Your task to perform on an android device: add a contact in the contacts app Image 0: 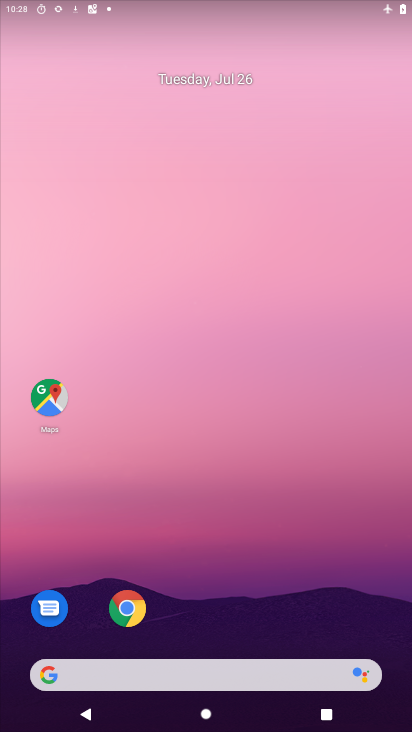
Step 0: drag from (209, 396) to (242, 128)
Your task to perform on an android device: add a contact in the contacts app Image 1: 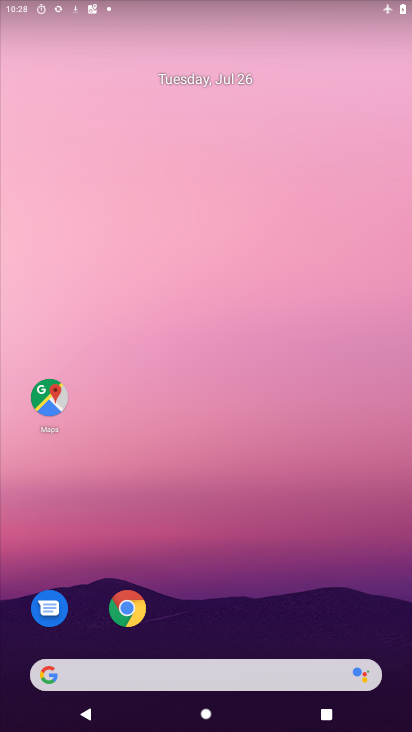
Step 1: drag from (206, 601) to (214, 91)
Your task to perform on an android device: add a contact in the contacts app Image 2: 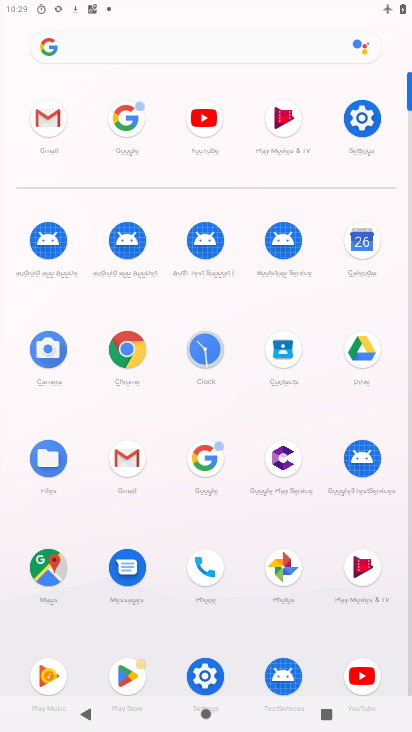
Step 2: click (280, 362)
Your task to perform on an android device: add a contact in the contacts app Image 3: 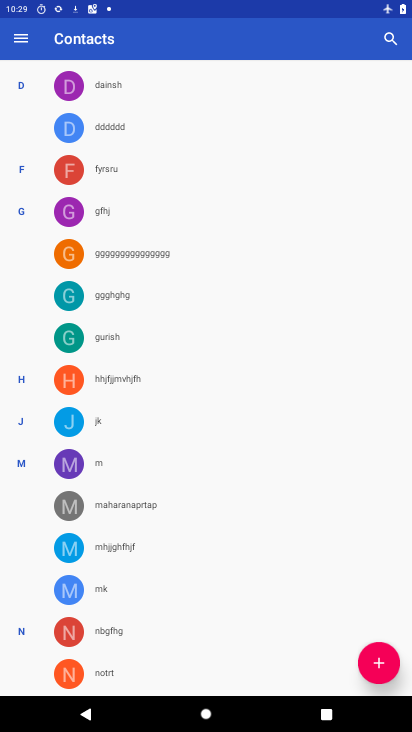
Step 3: click (377, 666)
Your task to perform on an android device: add a contact in the contacts app Image 4: 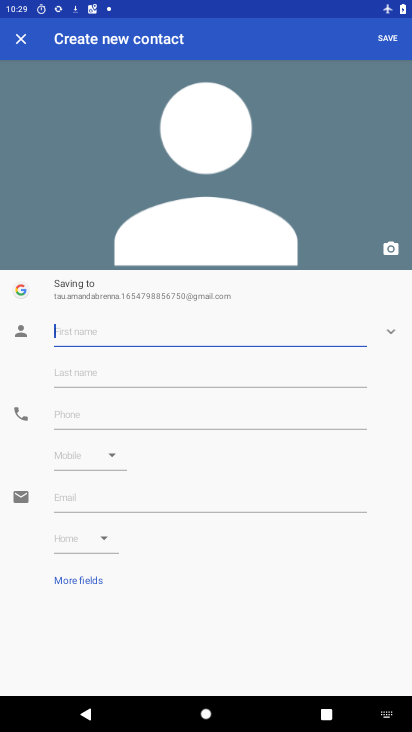
Step 4: type "cvngn"
Your task to perform on an android device: add a contact in the contacts app Image 5: 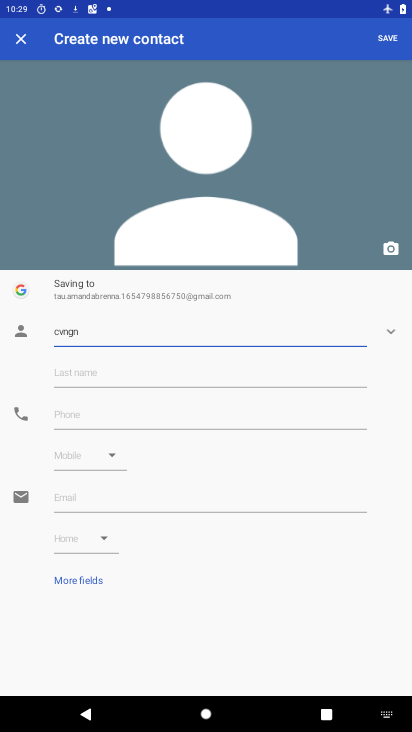
Step 5: click (112, 424)
Your task to perform on an android device: add a contact in the contacts app Image 6: 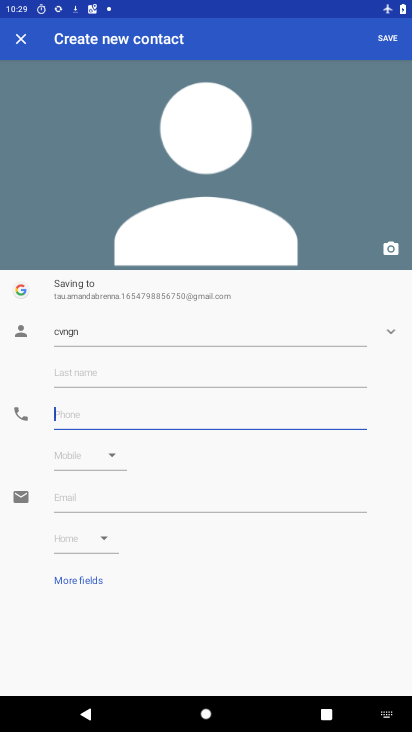
Step 6: type "8685746546"
Your task to perform on an android device: add a contact in the contacts app Image 7: 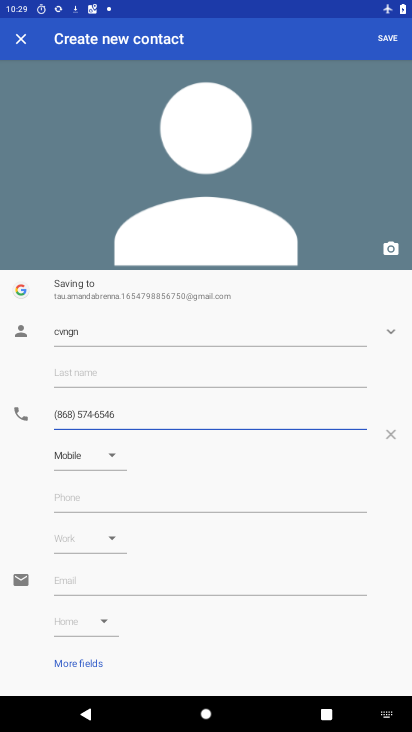
Step 7: click (392, 48)
Your task to perform on an android device: add a contact in the contacts app Image 8: 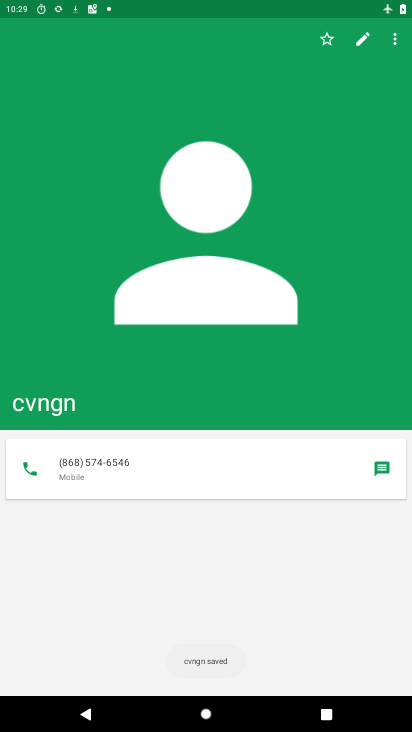
Step 8: task complete